Your task to perform on an android device: uninstall "Google Home" Image 0: 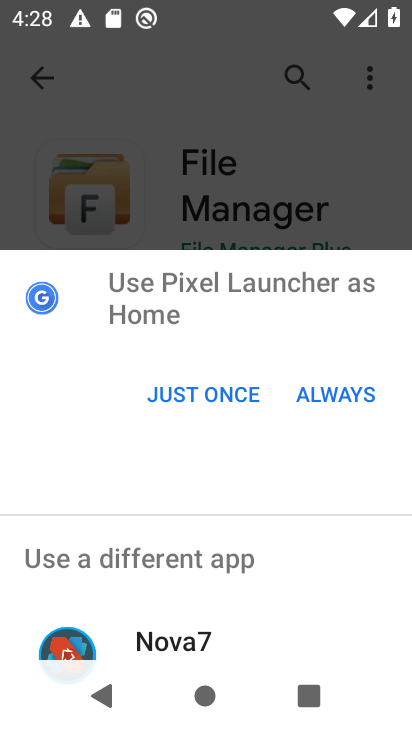
Step 0: press home button
Your task to perform on an android device: uninstall "Google Home" Image 1: 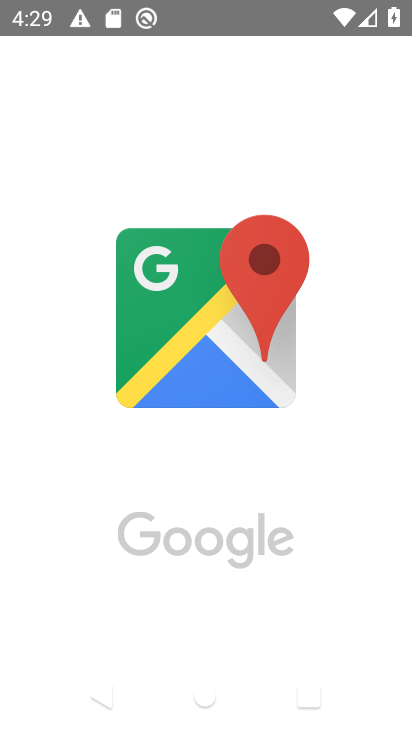
Step 1: press home button
Your task to perform on an android device: uninstall "Google Home" Image 2: 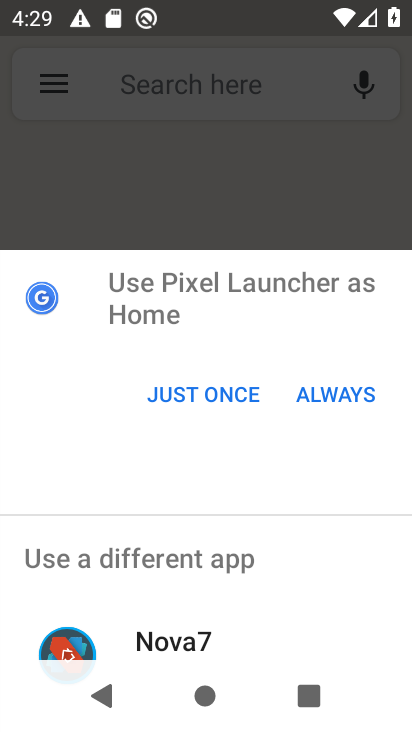
Step 2: click (323, 394)
Your task to perform on an android device: uninstall "Google Home" Image 3: 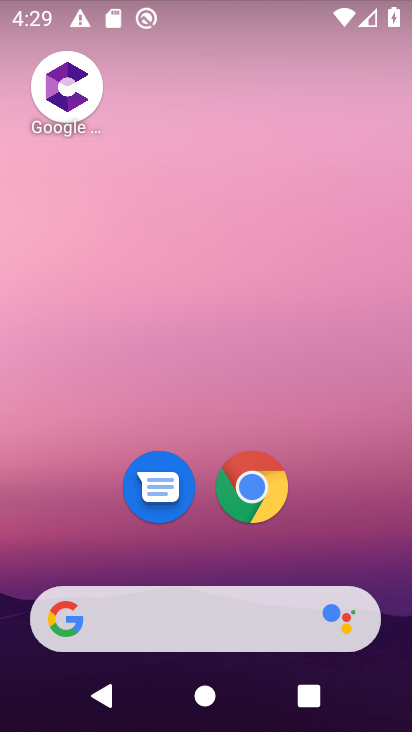
Step 3: drag from (208, 577) to (200, 0)
Your task to perform on an android device: uninstall "Google Home" Image 4: 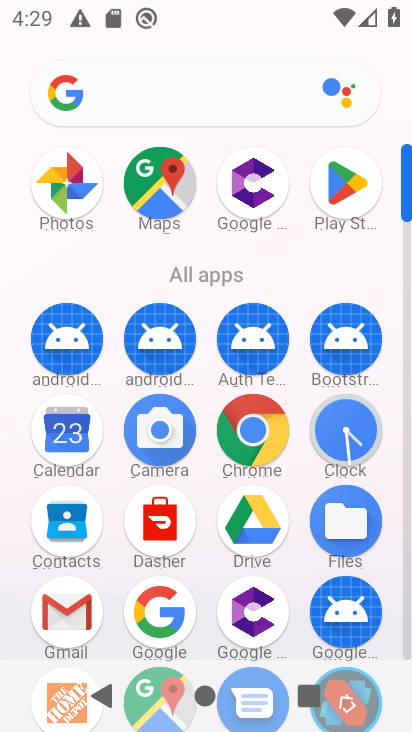
Step 4: click (351, 183)
Your task to perform on an android device: uninstall "Google Home" Image 5: 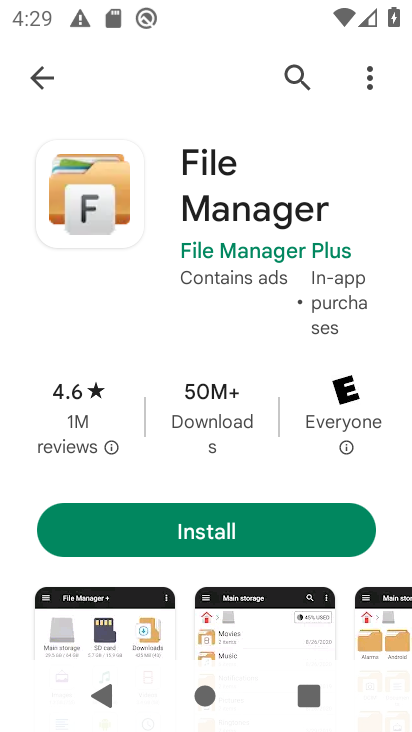
Step 5: click (298, 74)
Your task to perform on an android device: uninstall "Google Home" Image 6: 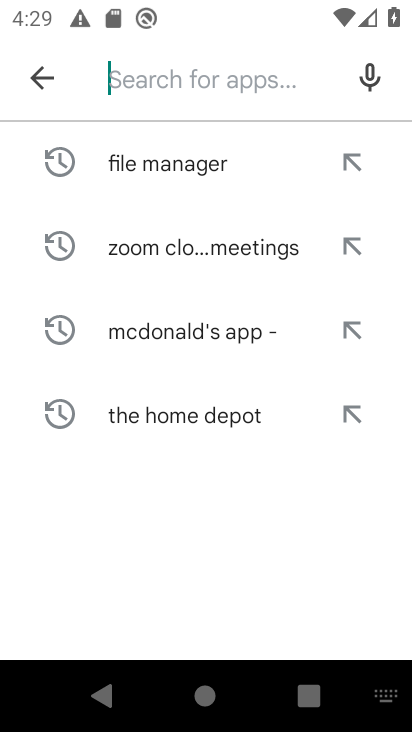
Step 6: type "Google Home"
Your task to perform on an android device: uninstall "Google Home" Image 7: 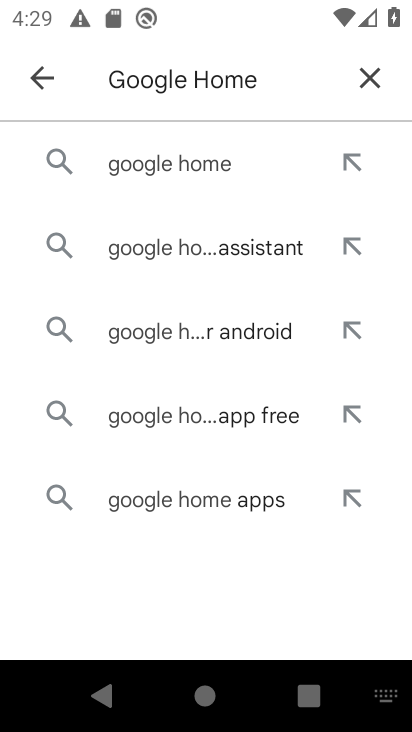
Step 7: click (187, 168)
Your task to perform on an android device: uninstall "Google Home" Image 8: 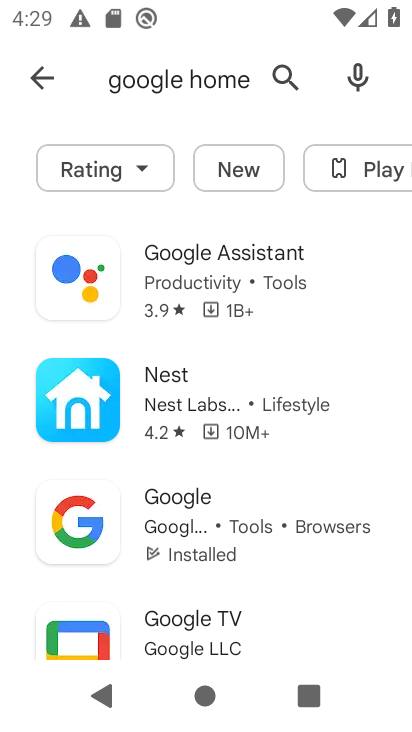
Step 8: task complete